Your task to perform on an android device: turn on translation in the chrome app Image 0: 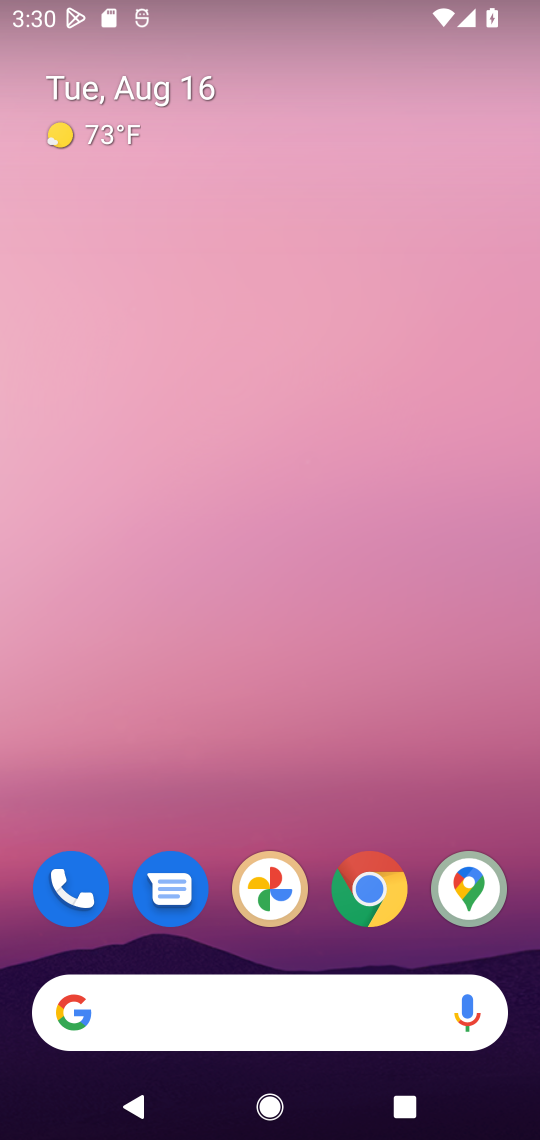
Step 0: click (372, 895)
Your task to perform on an android device: turn on translation in the chrome app Image 1: 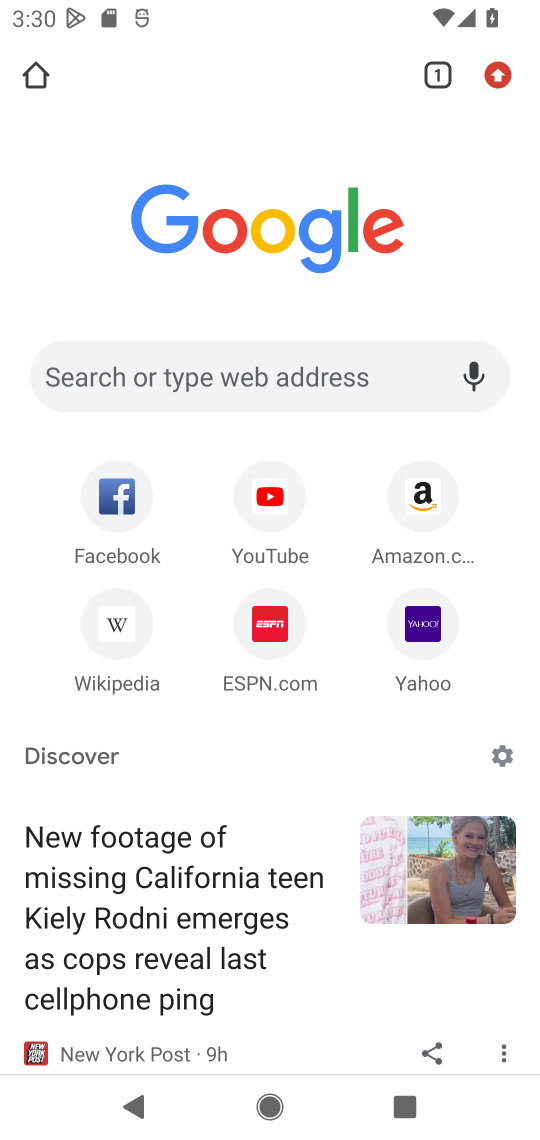
Step 1: task complete